Your task to perform on an android device: Open notification settings Image 0: 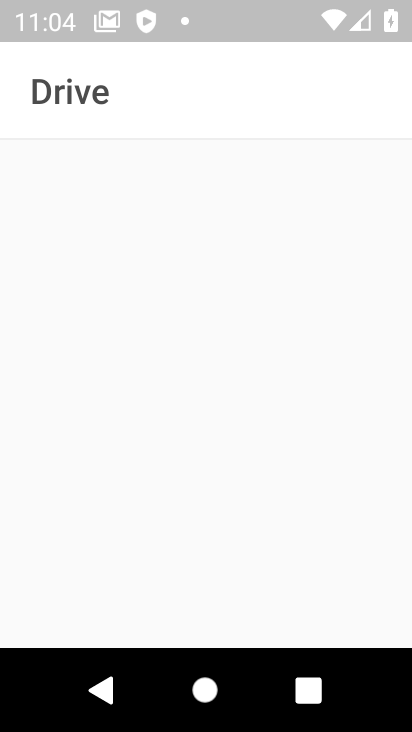
Step 0: press home button
Your task to perform on an android device: Open notification settings Image 1: 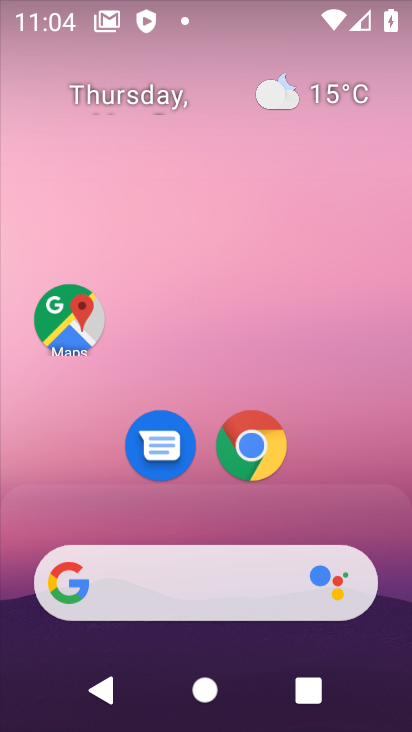
Step 1: drag from (220, 525) to (146, 11)
Your task to perform on an android device: Open notification settings Image 2: 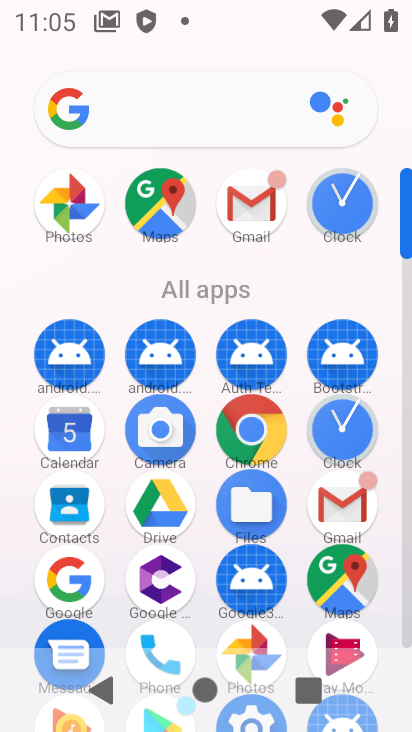
Step 2: drag from (205, 624) to (203, 180)
Your task to perform on an android device: Open notification settings Image 3: 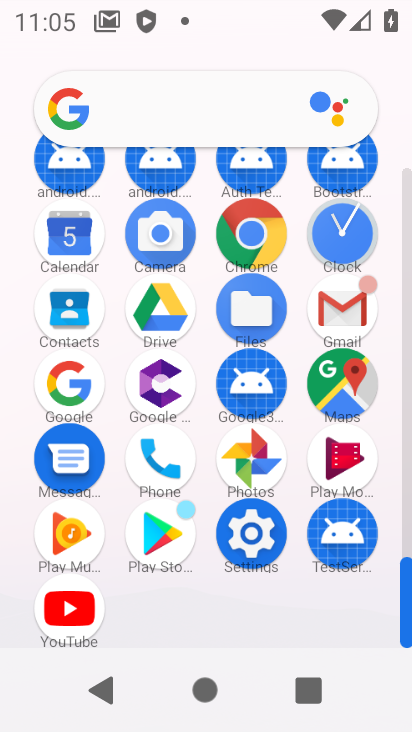
Step 3: drag from (212, 378) to (213, 176)
Your task to perform on an android device: Open notification settings Image 4: 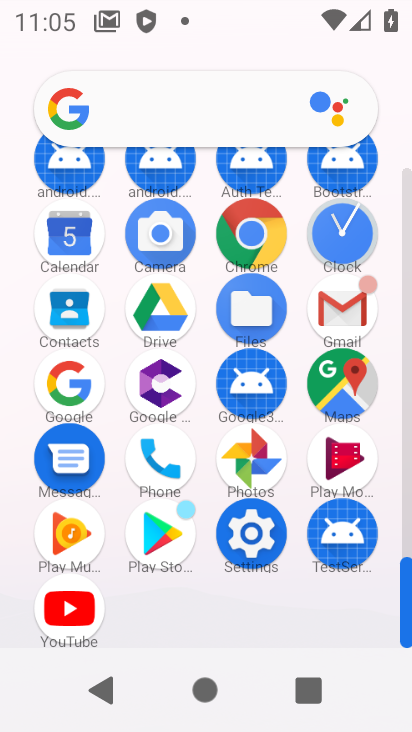
Step 4: click (254, 547)
Your task to perform on an android device: Open notification settings Image 5: 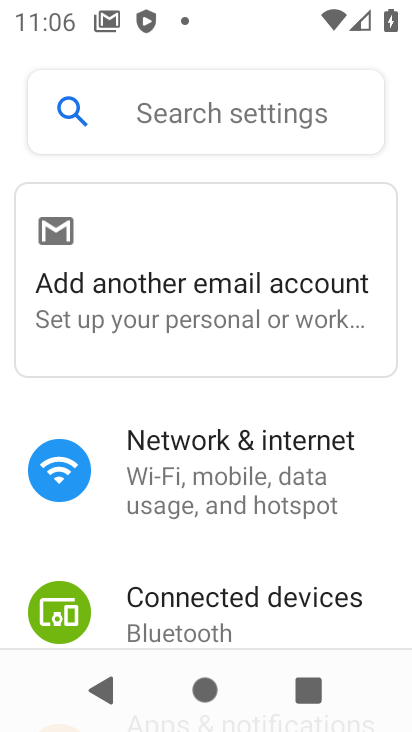
Step 5: drag from (91, 499) to (122, 189)
Your task to perform on an android device: Open notification settings Image 6: 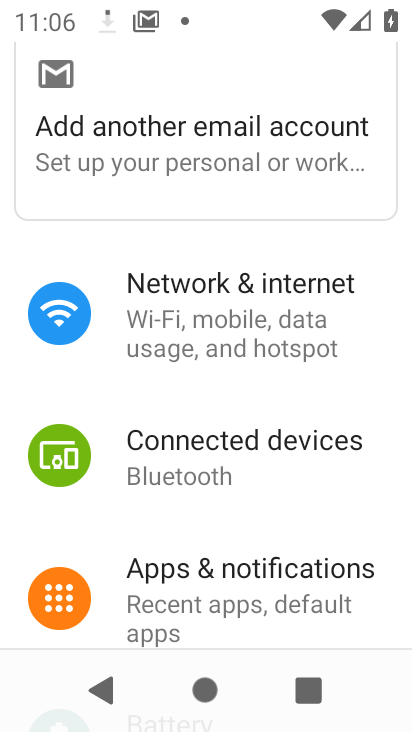
Step 6: click (215, 579)
Your task to perform on an android device: Open notification settings Image 7: 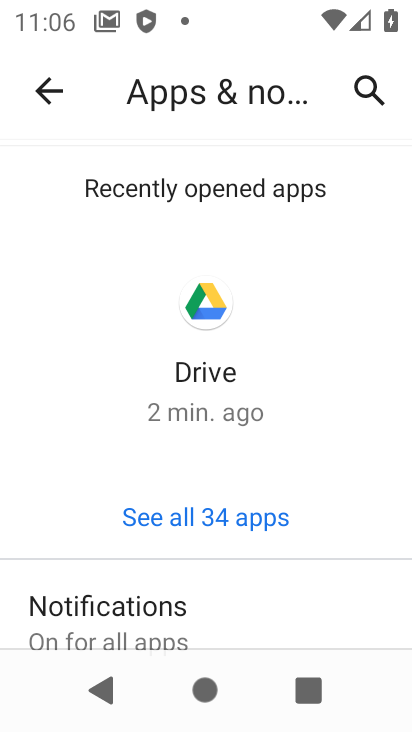
Step 7: task complete